Your task to perform on an android device: toggle priority inbox in the gmail app Image 0: 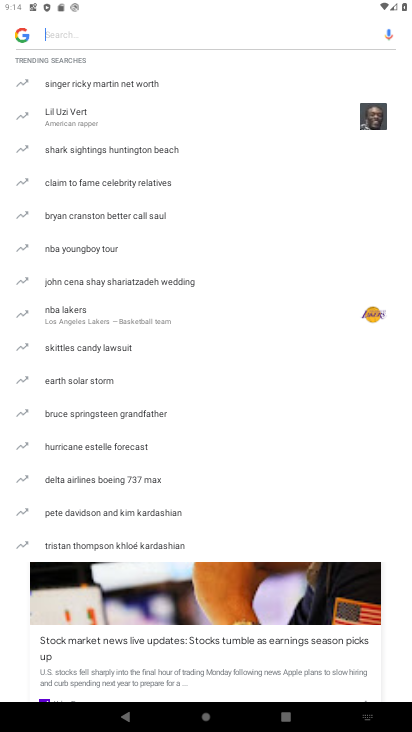
Step 0: press home button
Your task to perform on an android device: toggle priority inbox in the gmail app Image 1: 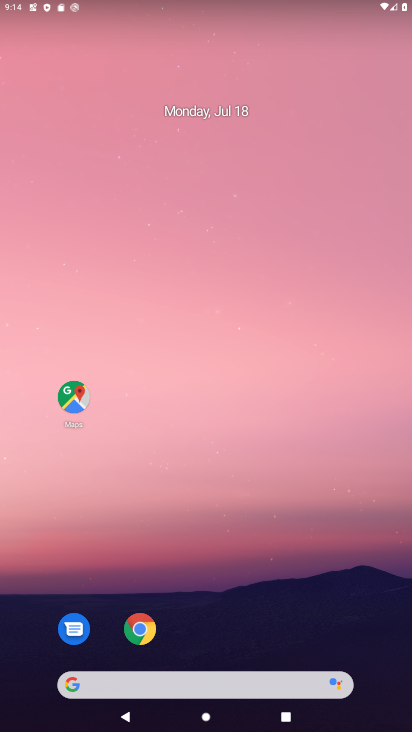
Step 1: drag from (326, 631) to (224, 141)
Your task to perform on an android device: toggle priority inbox in the gmail app Image 2: 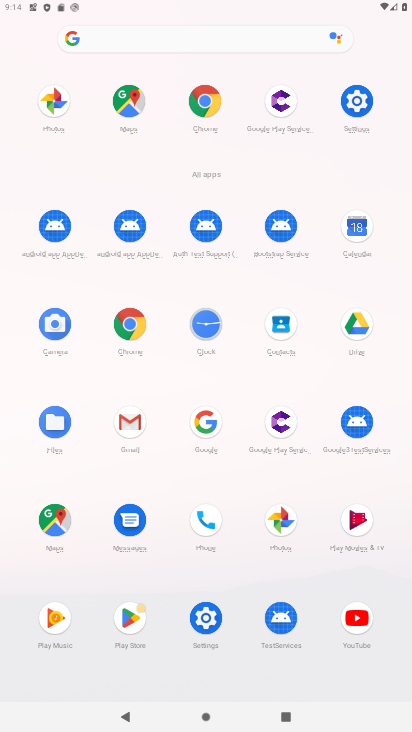
Step 2: click (130, 427)
Your task to perform on an android device: toggle priority inbox in the gmail app Image 3: 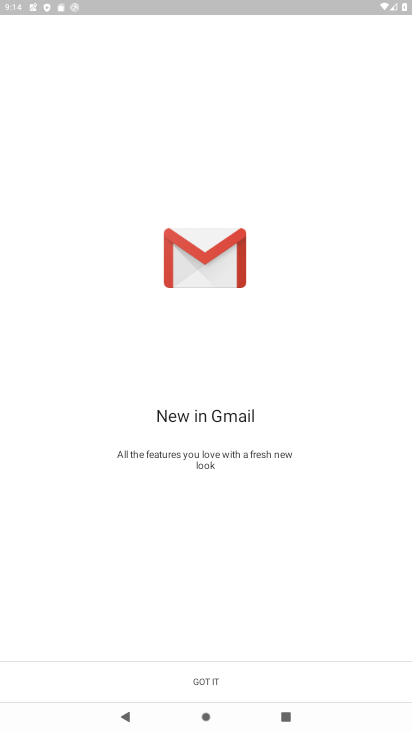
Step 3: click (238, 676)
Your task to perform on an android device: toggle priority inbox in the gmail app Image 4: 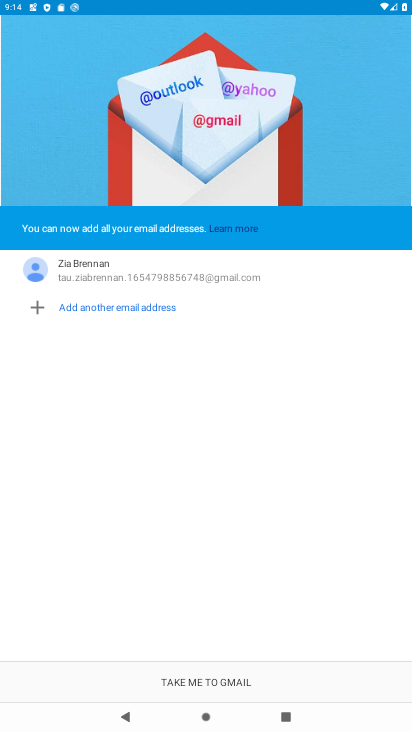
Step 4: click (240, 691)
Your task to perform on an android device: toggle priority inbox in the gmail app Image 5: 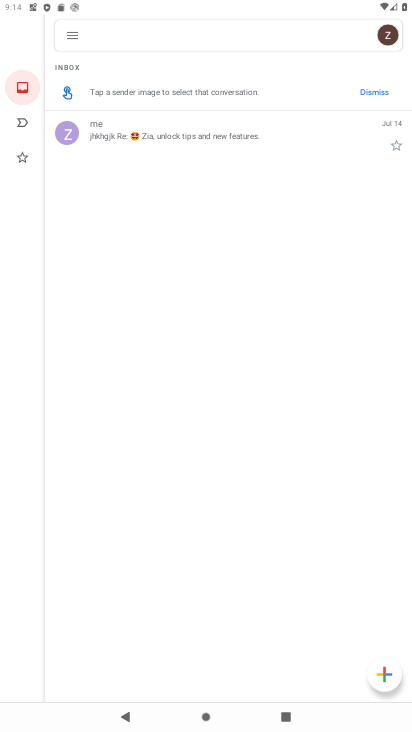
Step 5: click (73, 36)
Your task to perform on an android device: toggle priority inbox in the gmail app Image 6: 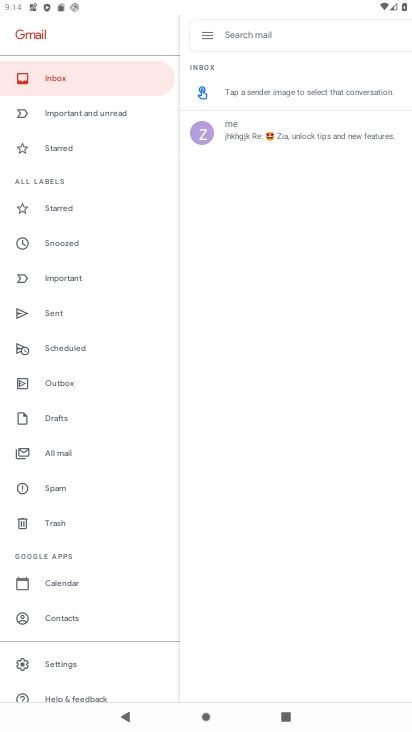
Step 6: click (66, 664)
Your task to perform on an android device: toggle priority inbox in the gmail app Image 7: 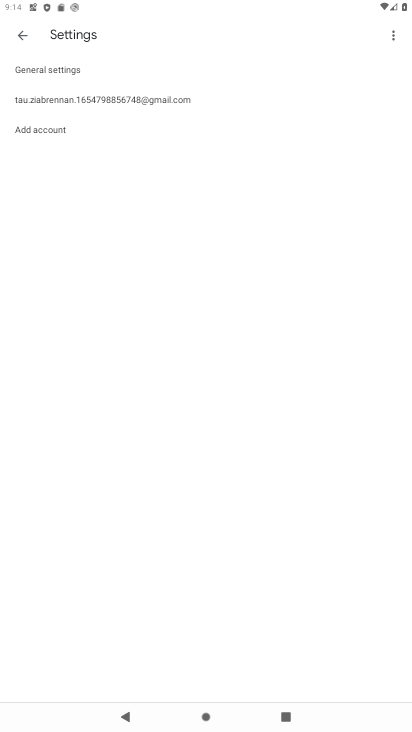
Step 7: click (134, 102)
Your task to perform on an android device: toggle priority inbox in the gmail app Image 8: 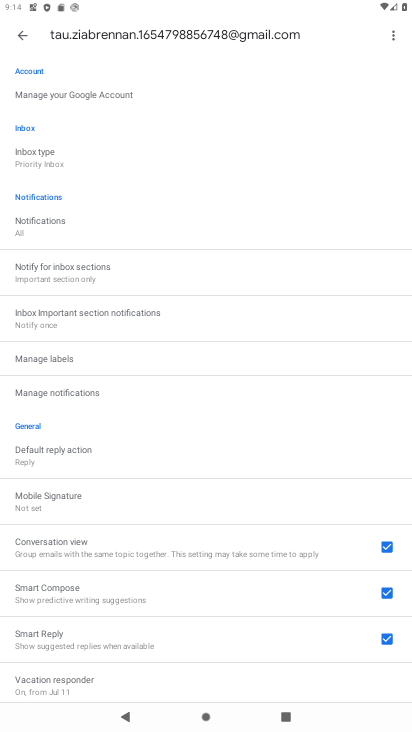
Step 8: click (44, 158)
Your task to perform on an android device: toggle priority inbox in the gmail app Image 9: 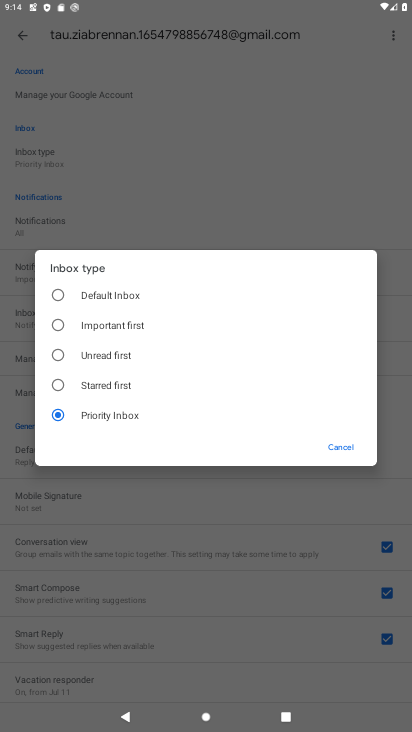
Step 9: click (104, 300)
Your task to perform on an android device: toggle priority inbox in the gmail app Image 10: 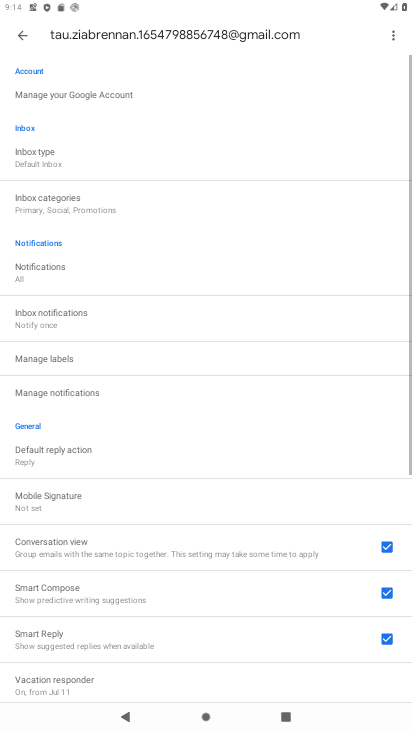
Step 10: task complete